Your task to perform on an android device: Open Youtube and go to "Your channel" Image 0: 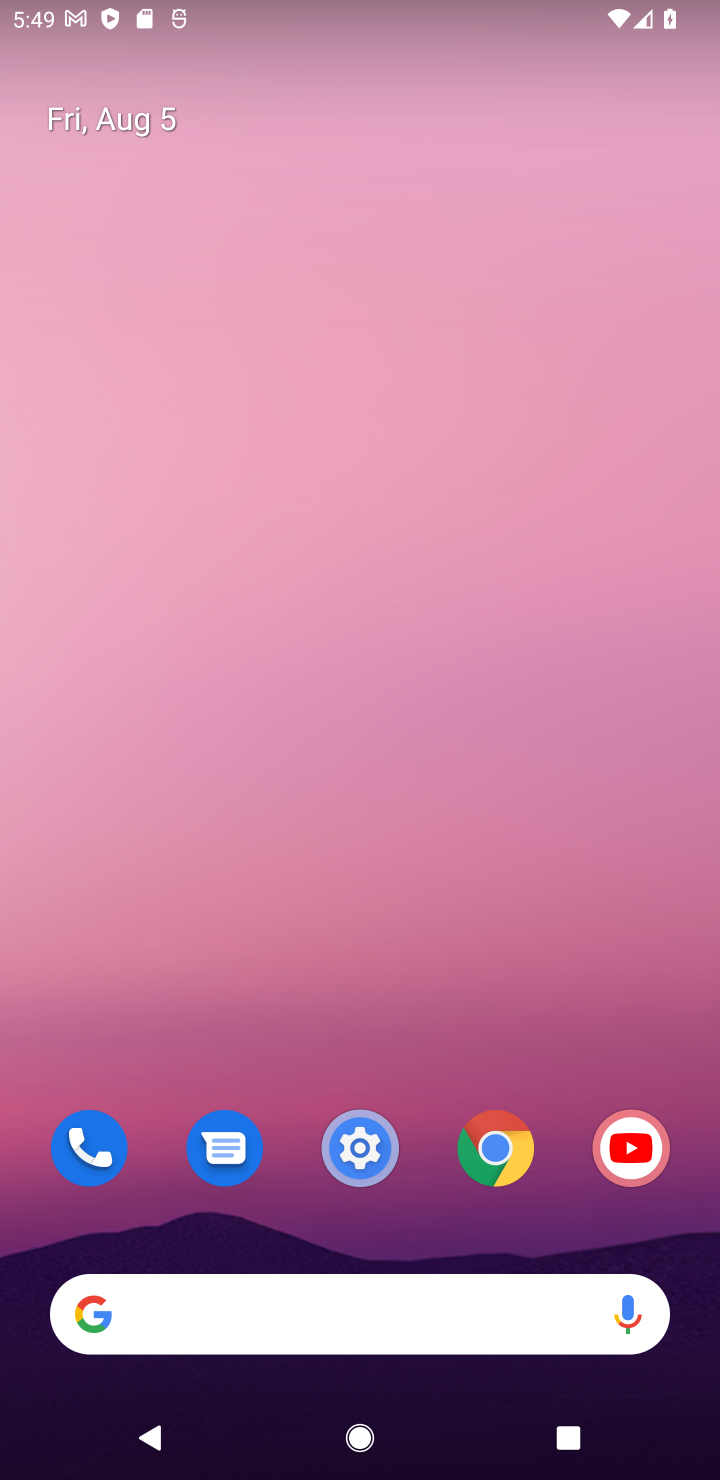
Step 0: press home button
Your task to perform on an android device: Open Youtube and go to "Your channel" Image 1: 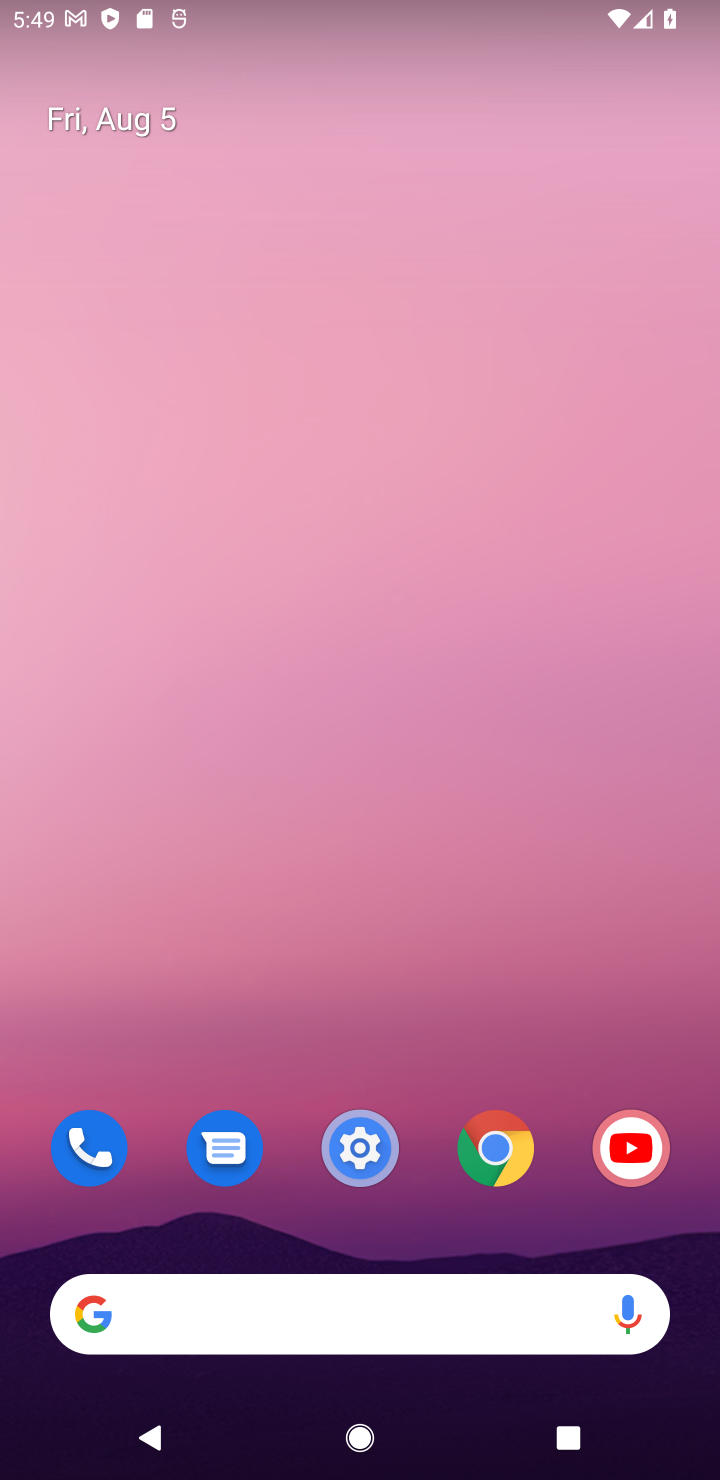
Step 1: click (630, 1133)
Your task to perform on an android device: Open Youtube and go to "Your channel" Image 2: 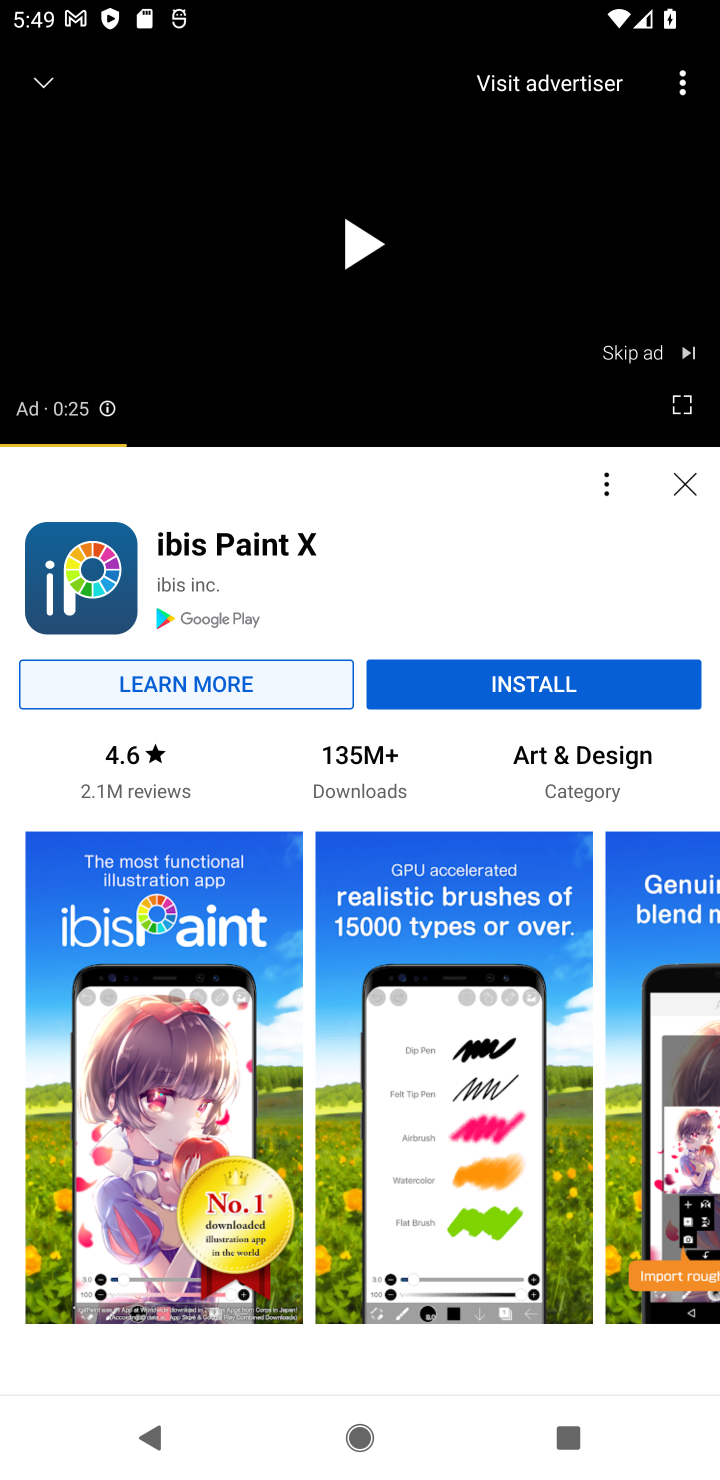
Step 2: click (39, 82)
Your task to perform on an android device: Open Youtube and go to "Your channel" Image 3: 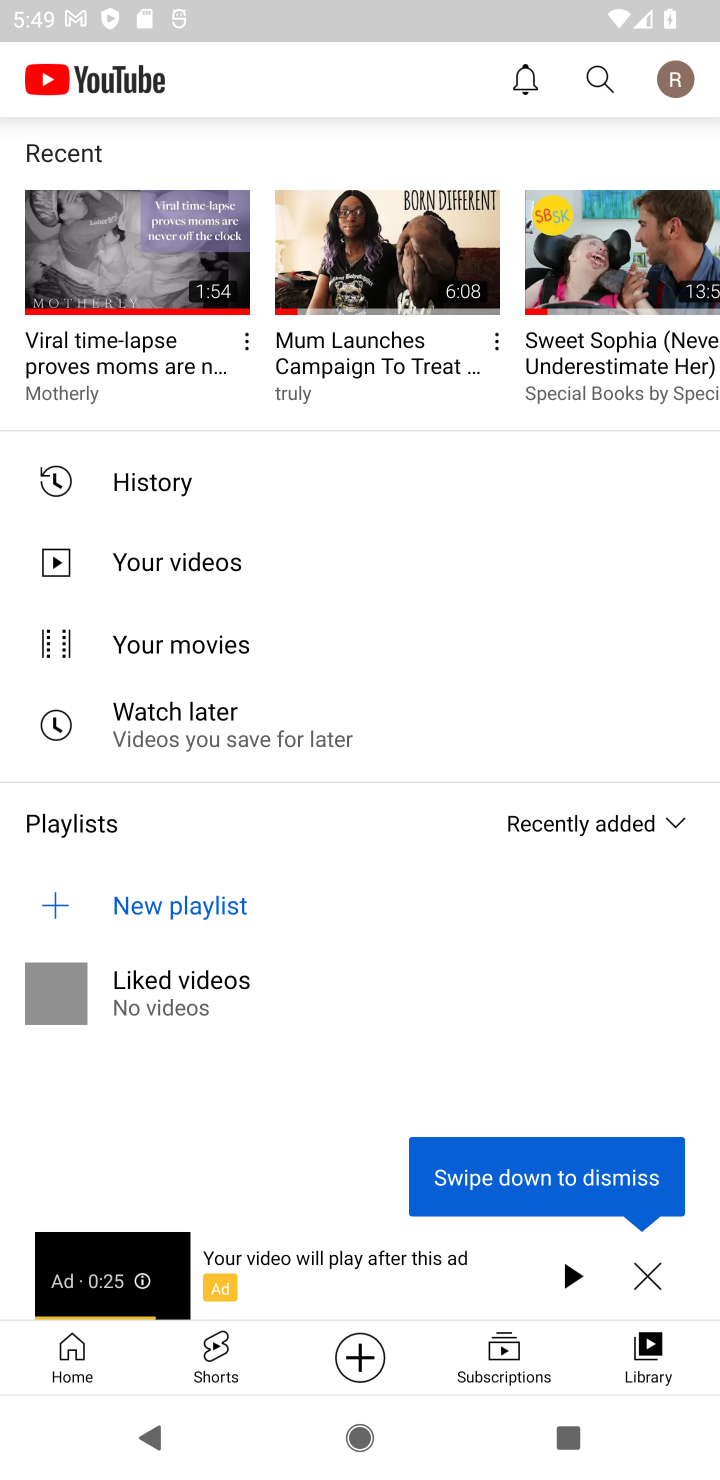
Step 3: click (681, 76)
Your task to perform on an android device: Open Youtube and go to "Your channel" Image 4: 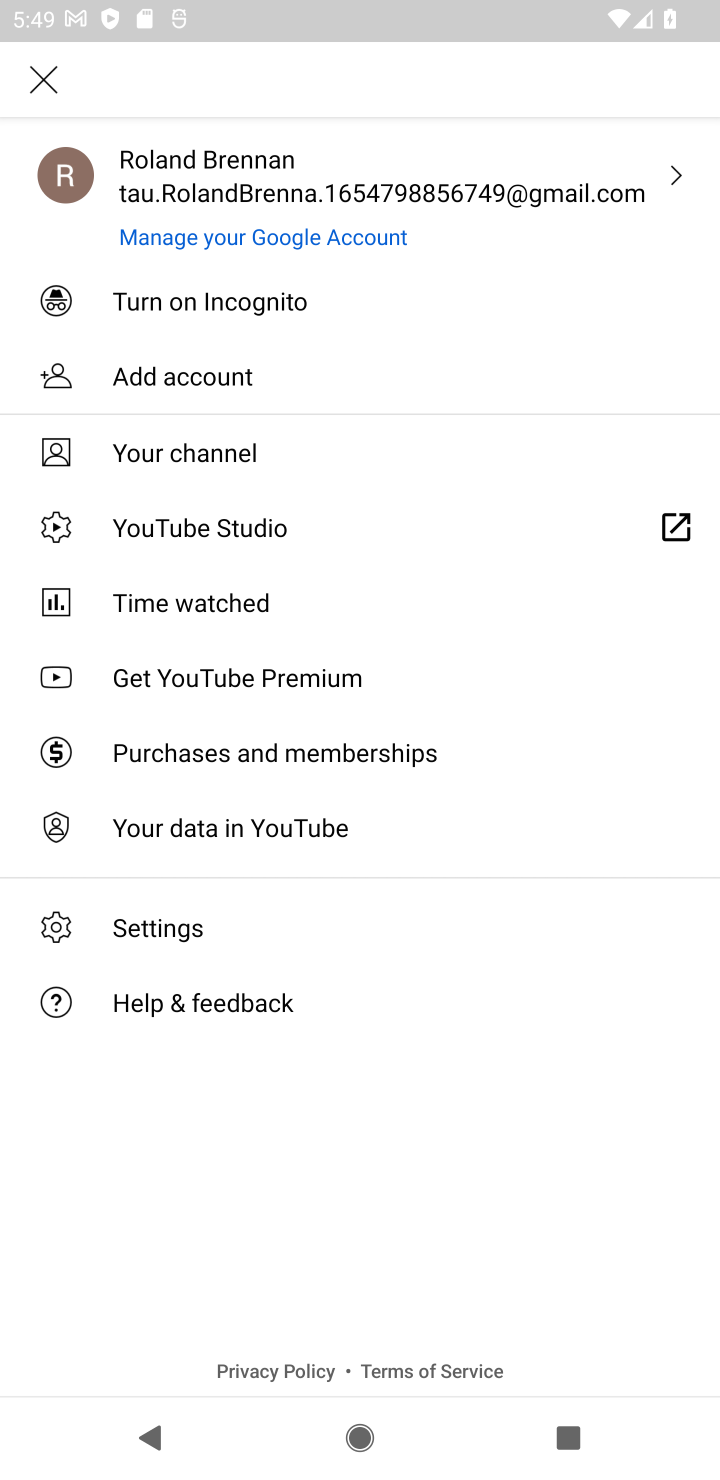
Step 4: click (167, 444)
Your task to perform on an android device: Open Youtube and go to "Your channel" Image 5: 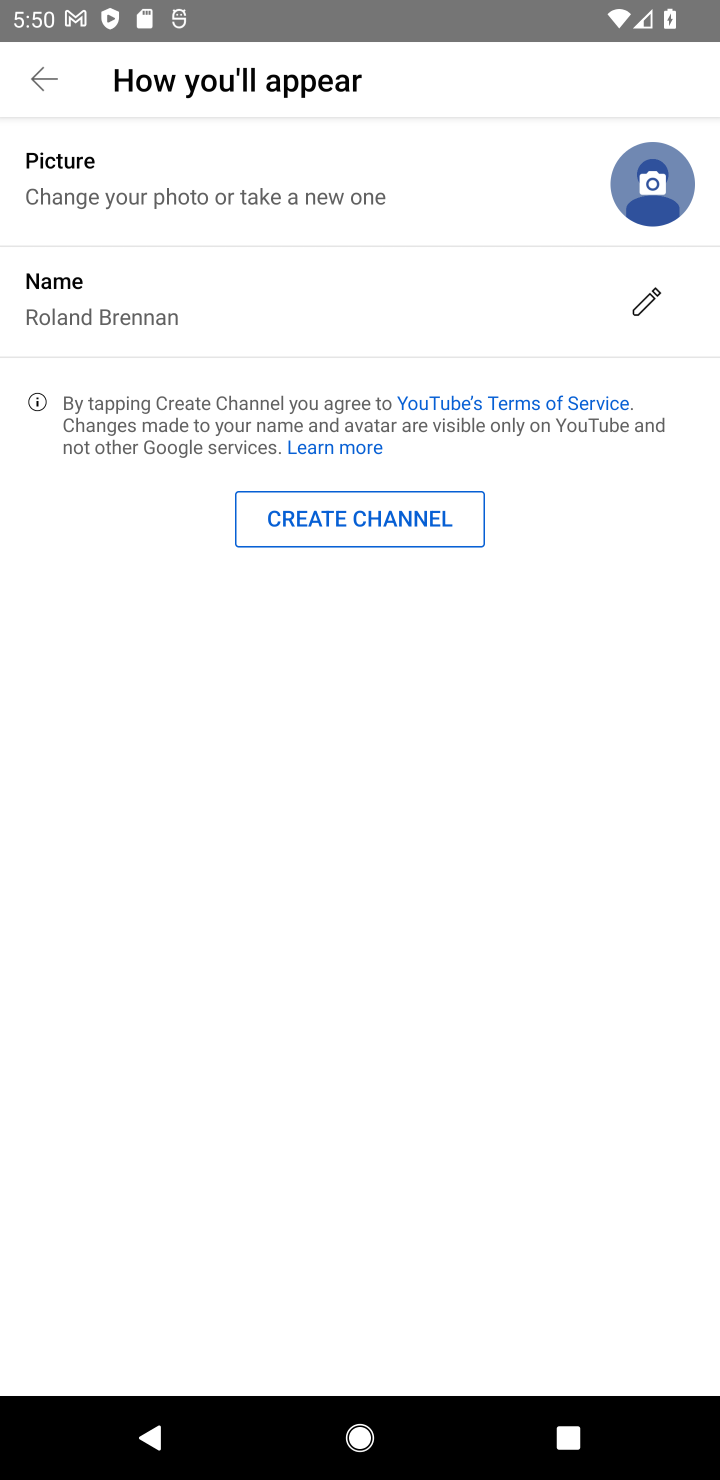
Step 5: task complete